Your task to perform on an android device: Open privacy settings Image 0: 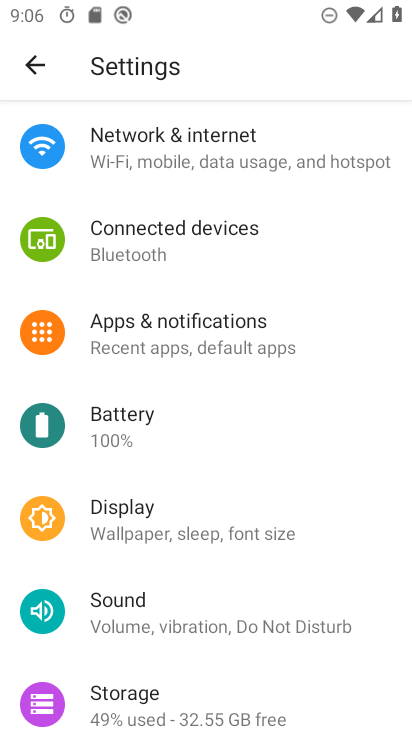
Step 0: drag from (109, 651) to (201, 180)
Your task to perform on an android device: Open privacy settings Image 1: 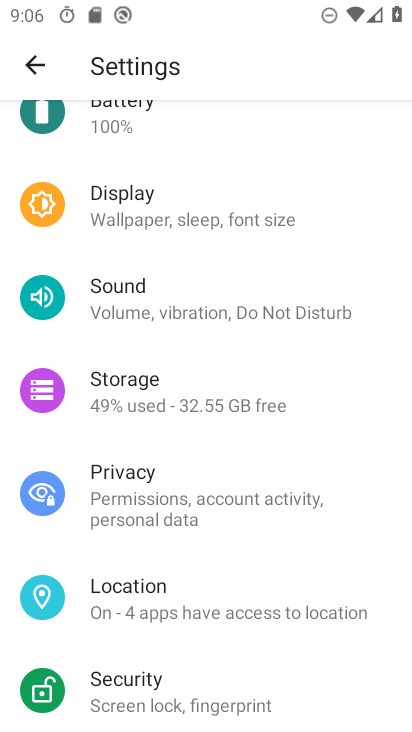
Step 1: click (127, 494)
Your task to perform on an android device: Open privacy settings Image 2: 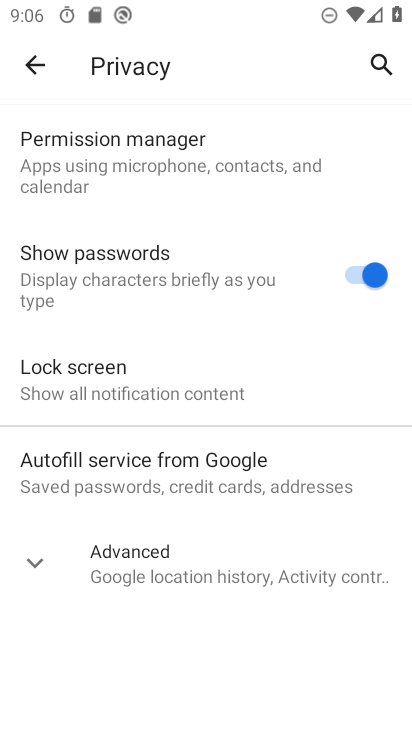
Step 2: task complete